Your task to perform on an android device: Go to Reddit.com Image 0: 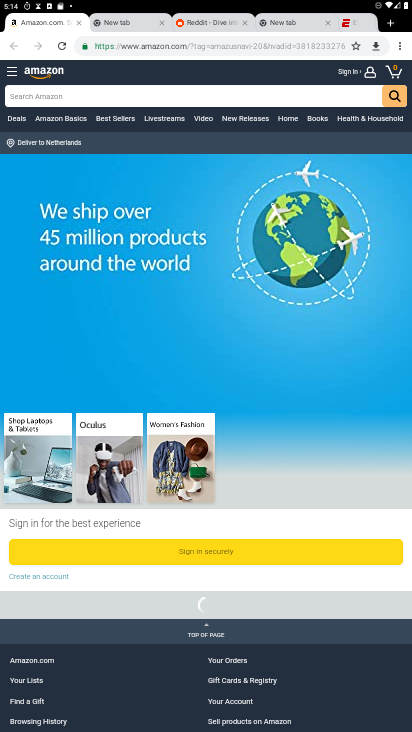
Step 0: press home button
Your task to perform on an android device: Go to Reddit.com Image 1: 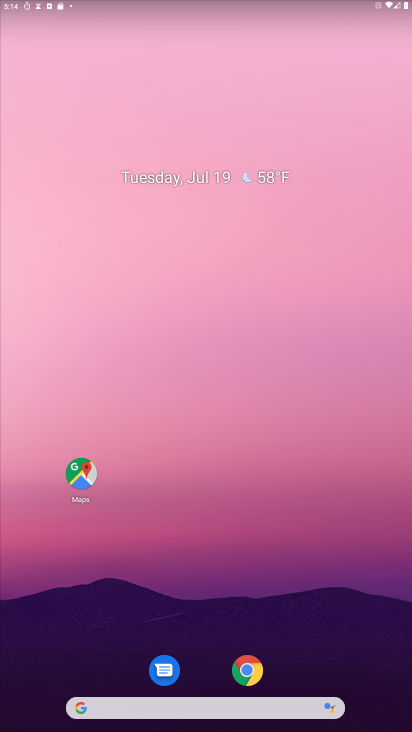
Step 1: drag from (256, 713) to (378, 518)
Your task to perform on an android device: Go to Reddit.com Image 2: 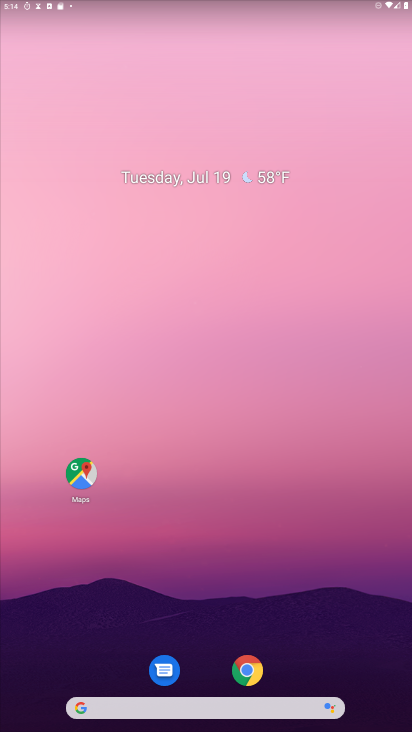
Step 2: click (252, 292)
Your task to perform on an android device: Go to Reddit.com Image 3: 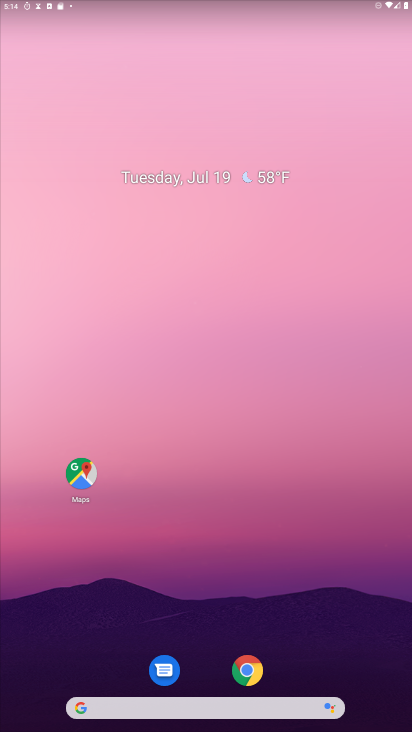
Step 3: drag from (270, 654) to (294, 47)
Your task to perform on an android device: Go to Reddit.com Image 4: 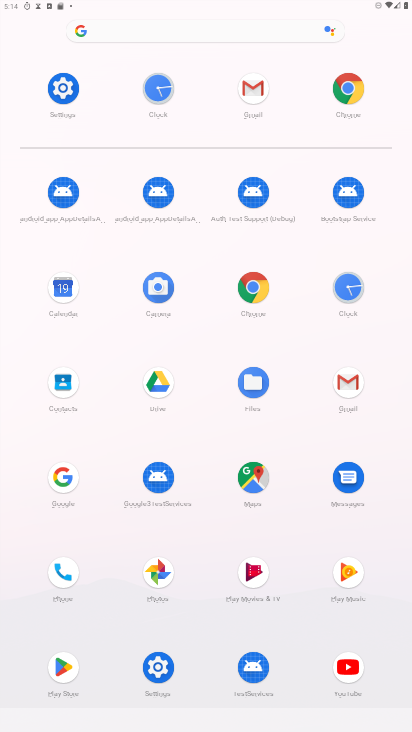
Step 4: click (256, 275)
Your task to perform on an android device: Go to Reddit.com Image 5: 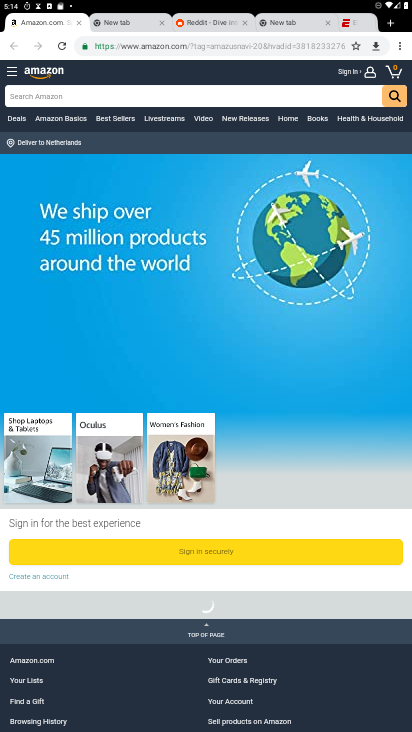
Step 5: click (191, 48)
Your task to perform on an android device: Go to Reddit.com Image 6: 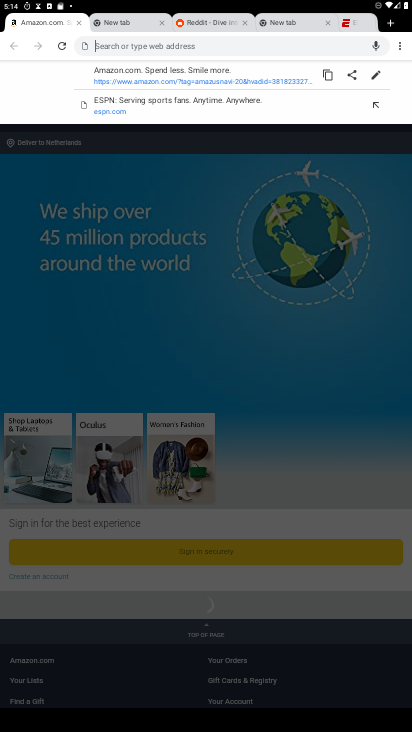
Step 6: type "reddit.com"
Your task to perform on an android device: Go to Reddit.com Image 7: 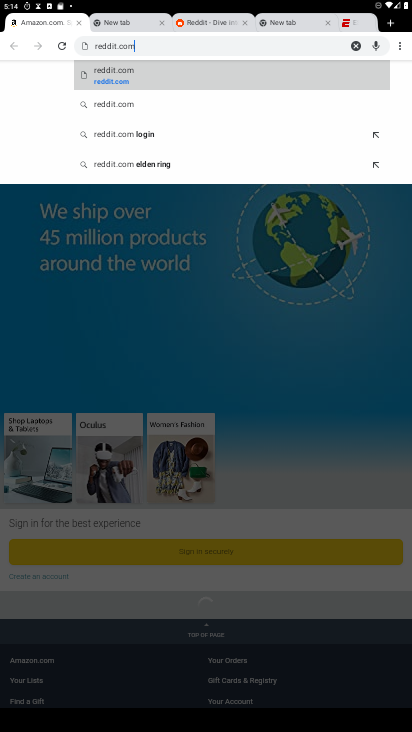
Step 7: click (95, 77)
Your task to perform on an android device: Go to Reddit.com Image 8: 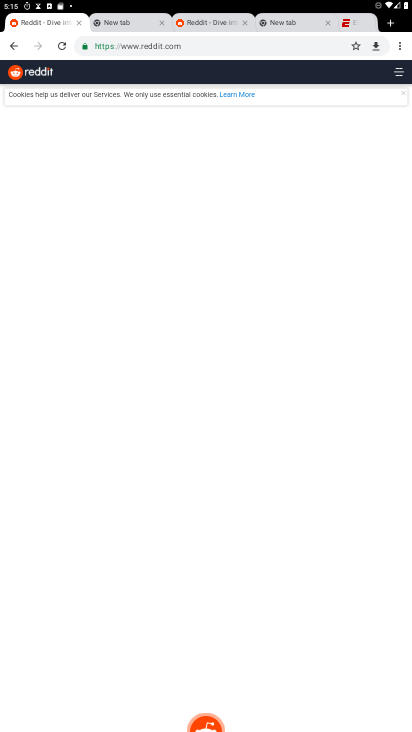
Step 8: task complete